Your task to perform on an android device: Show the shopping cart on walmart.com. Add "panasonic triple a" to the cart on walmart.com, then select checkout. Image 0: 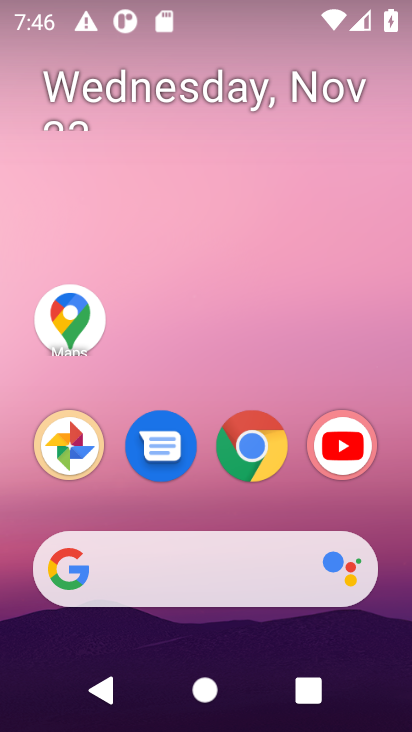
Step 0: click (234, 564)
Your task to perform on an android device: Show the shopping cart on walmart.com. Add "panasonic triple a" to the cart on walmart.com, then select checkout. Image 1: 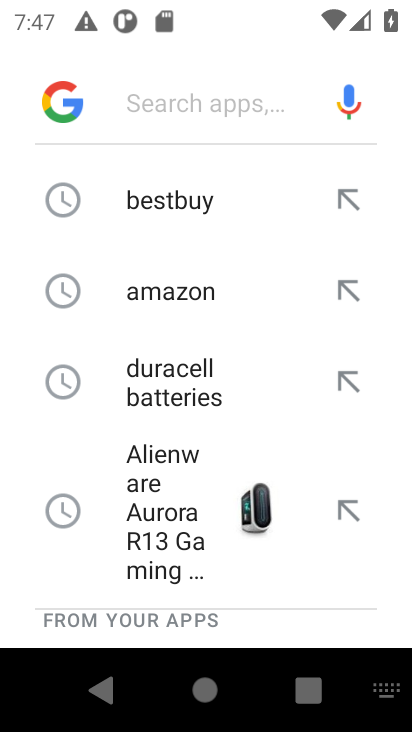
Step 1: type "walmart"
Your task to perform on an android device: Show the shopping cart on walmart.com. Add "panasonic triple a" to the cart on walmart.com, then select checkout. Image 2: 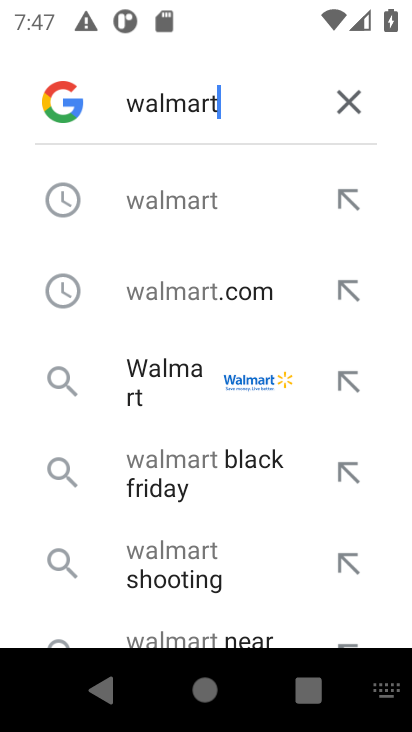
Step 2: click (248, 294)
Your task to perform on an android device: Show the shopping cart on walmart.com. Add "panasonic triple a" to the cart on walmart.com, then select checkout. Image 3: 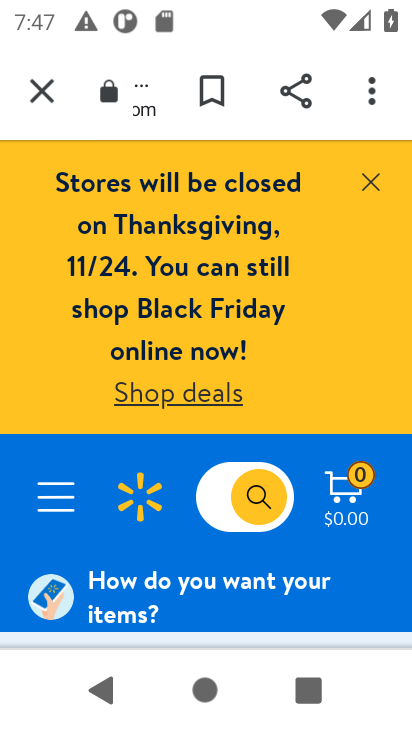
Step 3: click (372, 184)
Your task to perform on an android device: Show the shopping cart on walmart.com. Add "panasonic triple a" to the cart on walmart.com, then select checkout. Image 4: 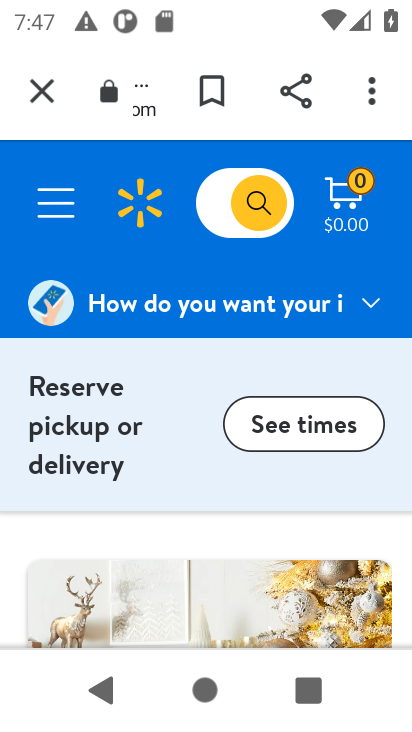
Step 4: click (217, 212)
Your task to perform on an android device: Show the shopping cart on walmart.com. Add "panasonic triple a" to the cart on walmart.com, then select checkout. Image 5: 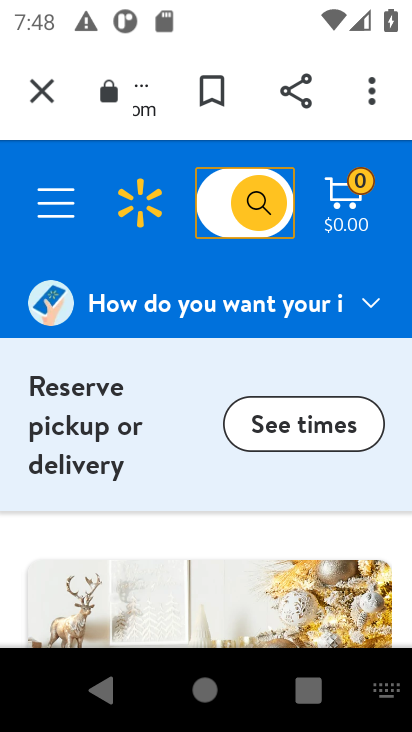
Step 5: task complete